Your task to perform on an android device: manage bookmarks in the chrome app Image 0: 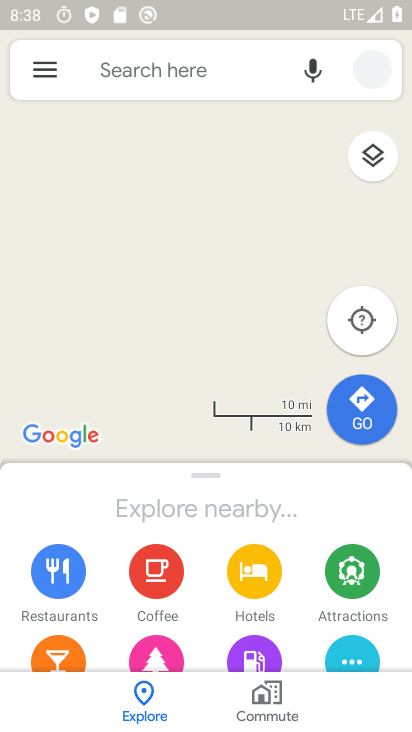
Step 0: press home button
Your task to perform on an android device: manage bookmarks in the chrome app Image 1: 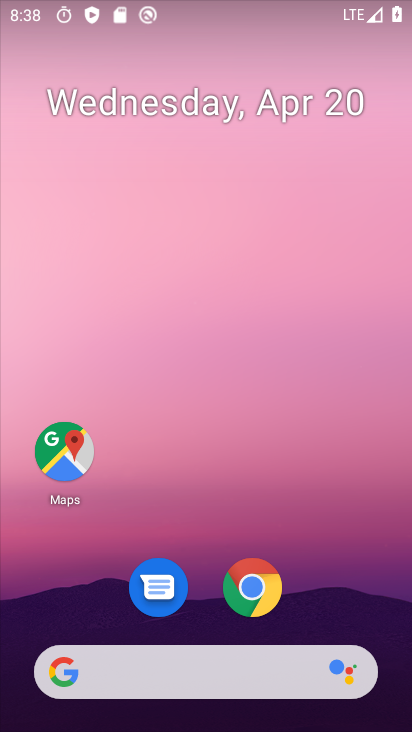
Step 1: drag from (343, 562) to (363, 186)
Your task to perform on an android device: manage bookmarks in the chrome app Image 2: 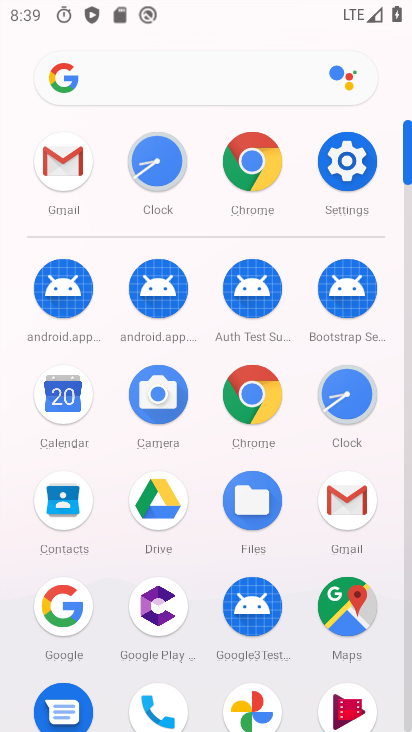
Step 2: click (256, 409)
Your task to perform on an android device: manage bookmarks in the chrome app Image 3: 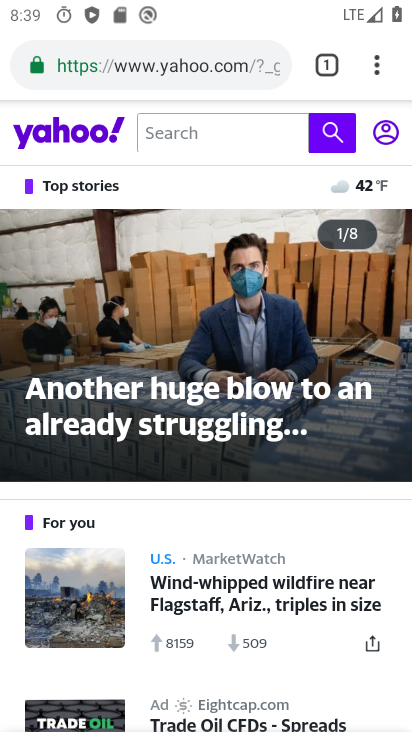
Step 3: click (377, 65)
Your task to perform on an android device: manage bookmarks in the chrome app Image 4: 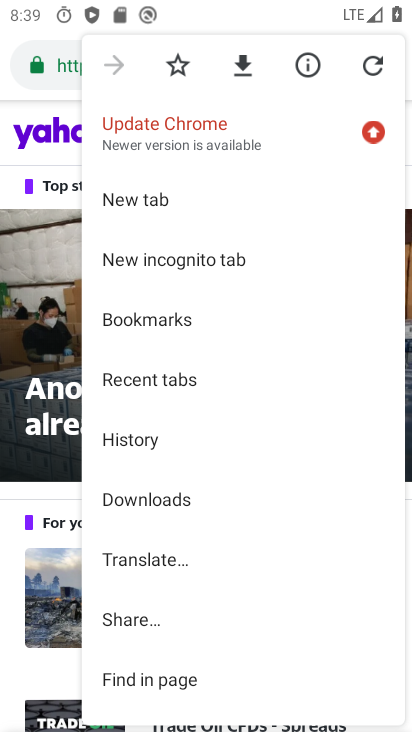
Step 4: click (182, 319)
Your task to perform on an android device: manage bookmarks in the chrome app Image 5: 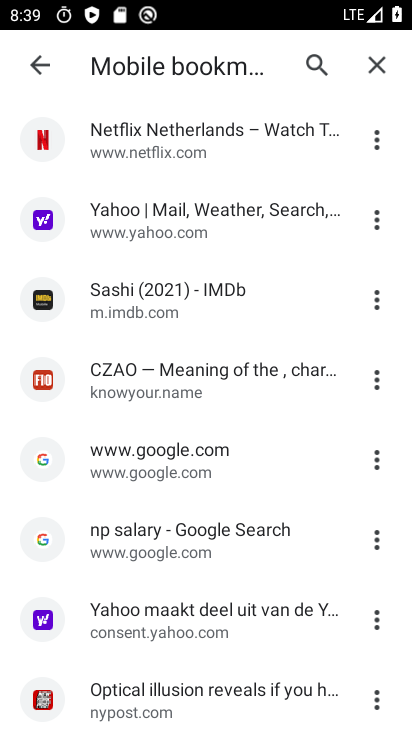
Step 5: click (379, 303)
Your task to perform on an android device: manage bookmarks in the chrome app Image 6: 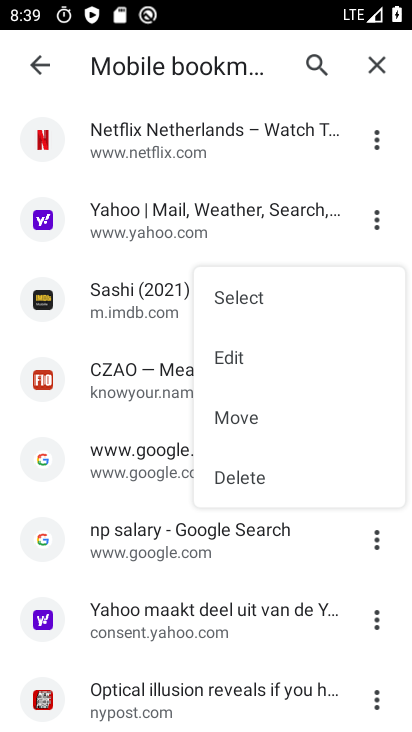
Step 6: click (256, 356)
Your task to perform on an android device: manage bookmarks in the chrome app Image 7: 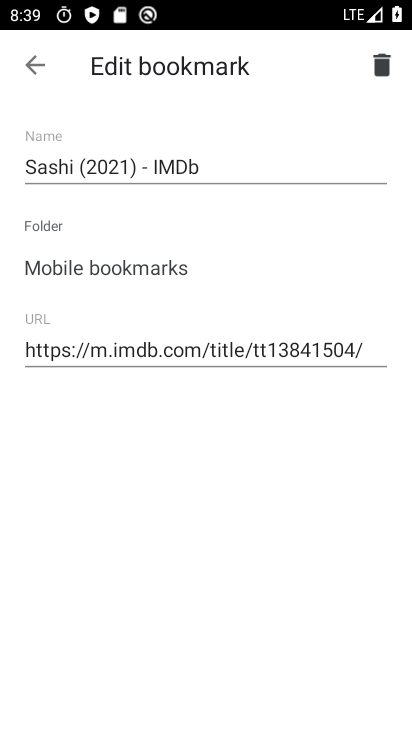
Step 7: click (225, 166)
Your task to perform on an android device: manage bookmarks in the chrome app Image 8: 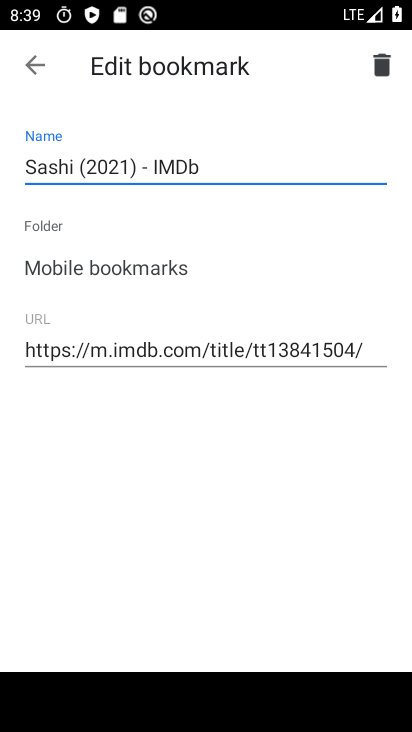
Step 8: type "bb"
Your task to perform on an android device: manage bookmarks in the chrome app Image 9: 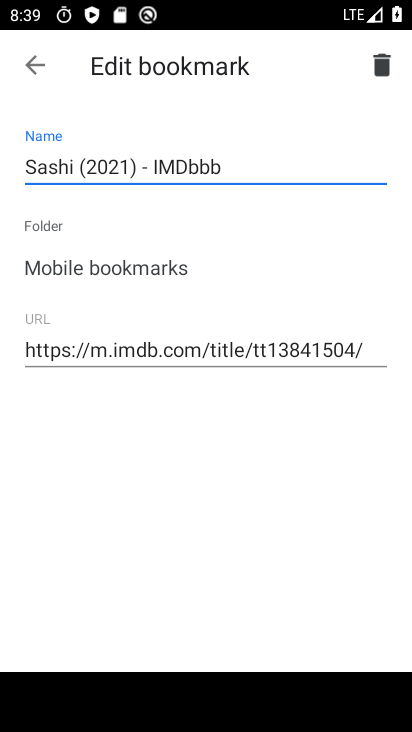
Step 9: click (41, 70)
Your task to perform on an android device: manage bookmarks in the chrome app Image 10: 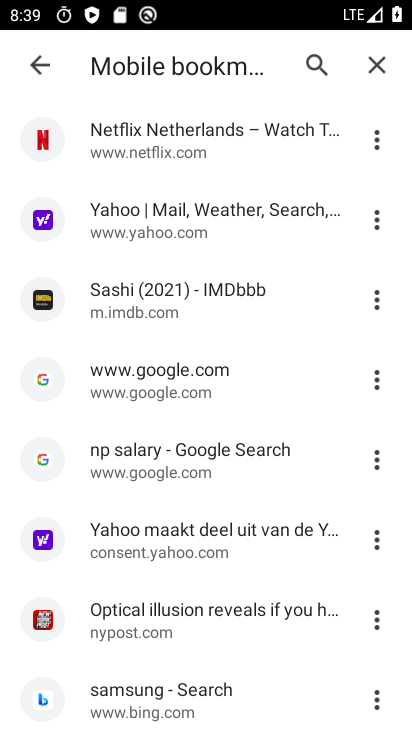
Step 10: task complete